Your task to perform on an android device: open chrome privacy settings Image 0: 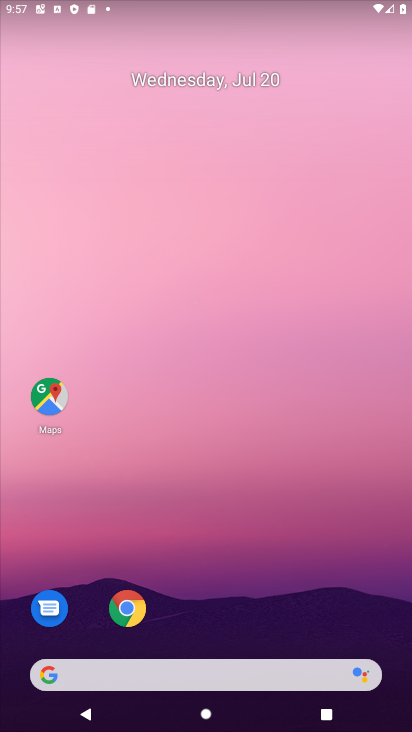
Step 0: drag from (308, 541) to (303, 38)
Your task to perform on an android device: open chrome privacy settings Image 1: 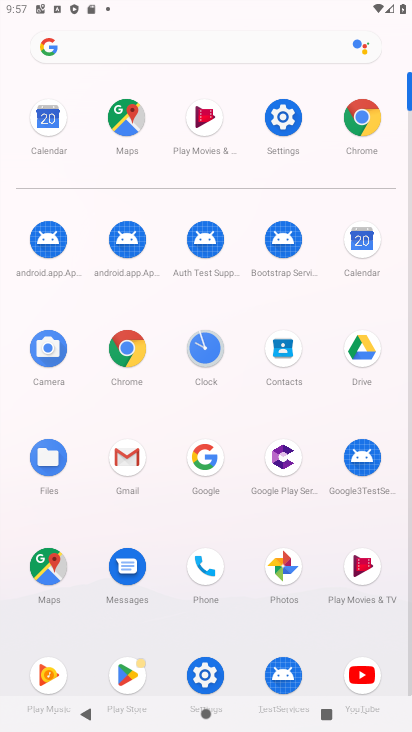
Step 1: click (137, 360)
Your task to perform on an android device: open chrome privacy settings Image 2: 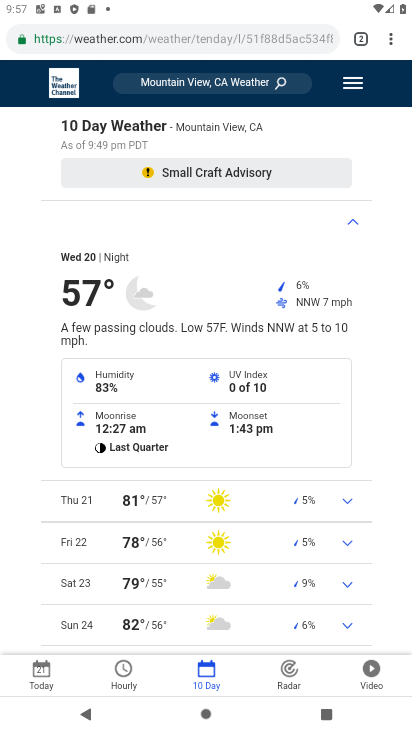
Step 2: click (390, 44)
Your task to perform on an android device: open chrome privacy settings Image 3: 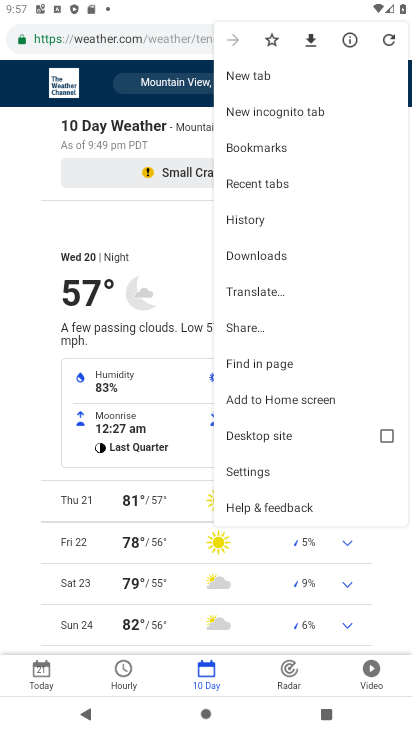
Step 3: click (308, 472)
Your task to perform on an android device: open chrome privacy settings Image 4: 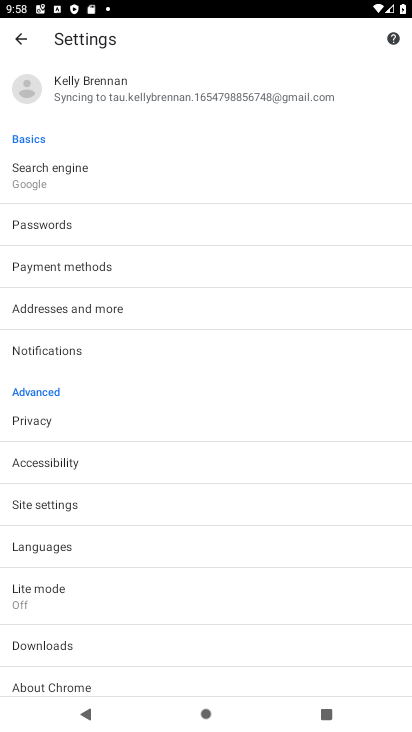
Step 4: click (179, 430)
Your task to perform on an android device: open chrome privacy settings Image 5: 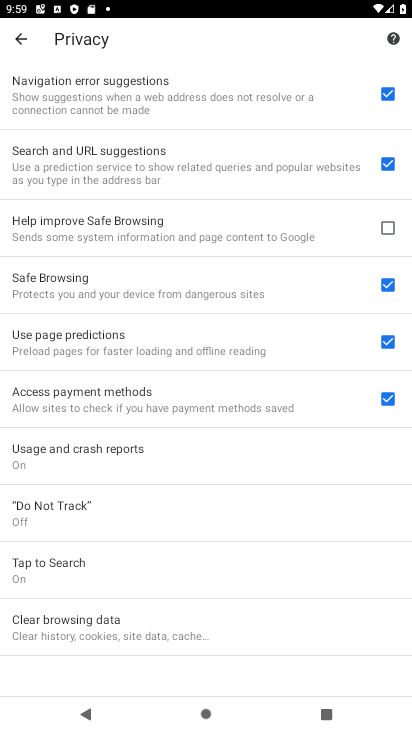
Step 5: task complete